Your task to perform on an android device: Open settings on Google Maps Image 0: 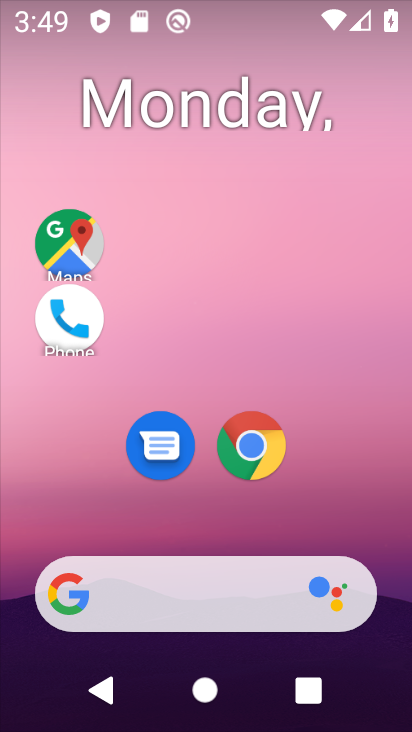
Step 0: click (75, 228)
Your task to perform on an android device: Open settings on Google Maps Image 1: 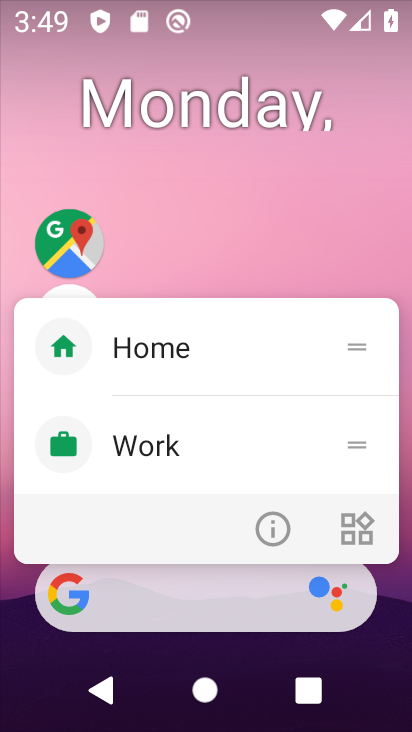
Step 1: click (72, 255)
Your task to perform on an android device: Open settings on Google Maps Image 2: 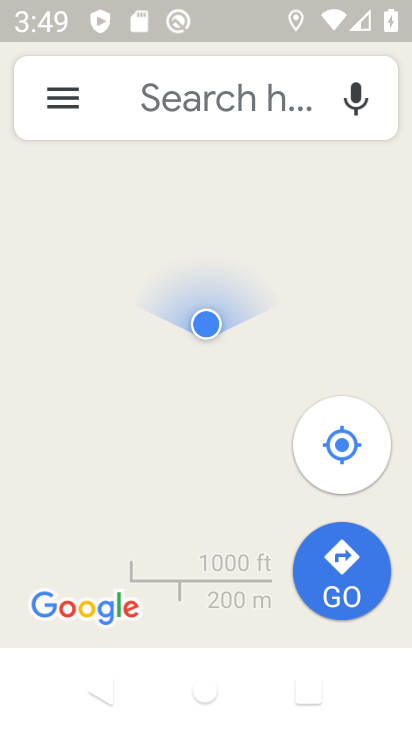
Step 2: click (64, 96)
Your task to perform on an android device: Open settings on Google Maps Image 3: 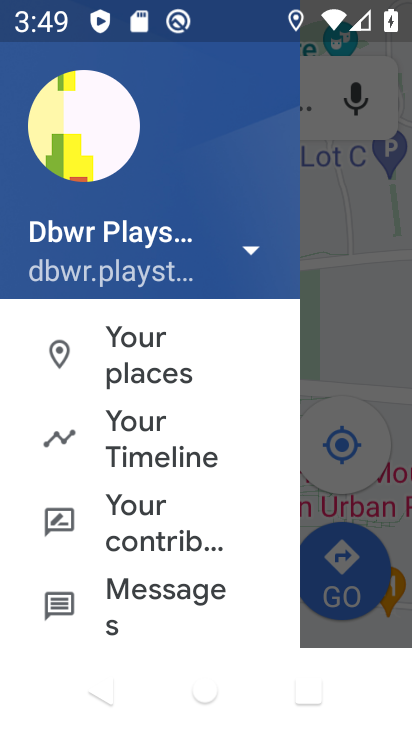
Step 3: drag from (176, 577) to (164, 90)
Your task to perform on an android device: Open settings on Google Maps Image 4: 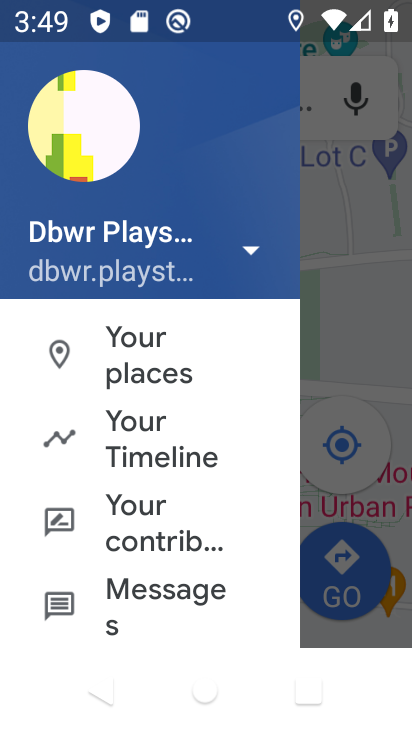
Step 4: drag from (140, 620) to (174, 207)
Your task to perform on an android device: Open settings on Google Maps Image 5: 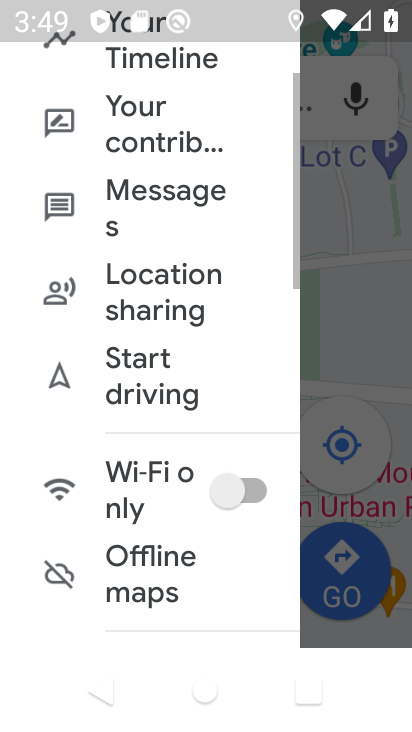
Step 5: drag from (156, 550) to (136, 109)
Your task to perform on an android device: Open settings on Google Maps Image 6: 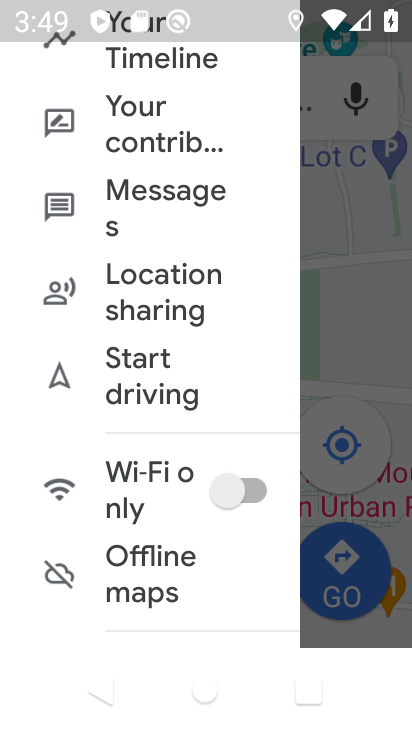
Step 6: drag from (131, 566) to (148, 89)
Your task to perform on an android device: Open settings on Google Maps Image 7: 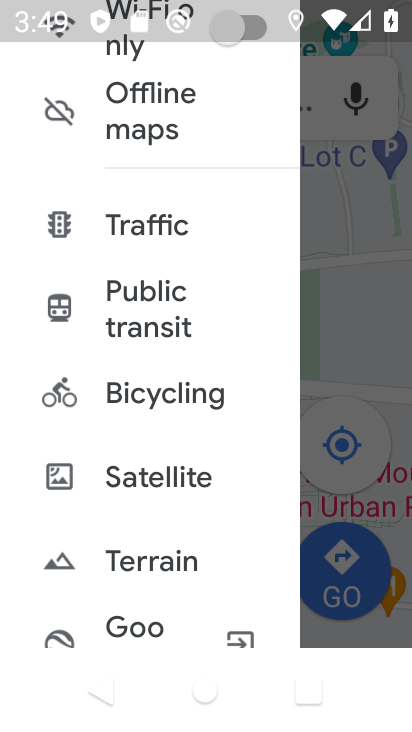
Step 7: drag from (148, 587) to (190, 65)
Your task to perform on an android device: Open settings on Google Maps Image 8: 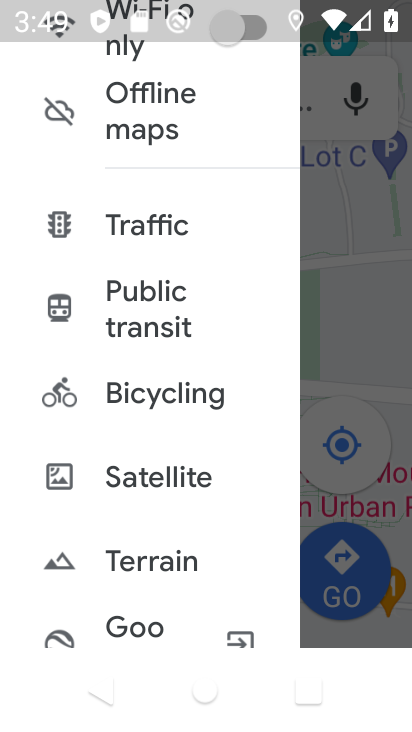
Step 8: drag from (182, 609) to (153, 192)
Your task to perform on an android device: Open settings on Google Maps Image 9: 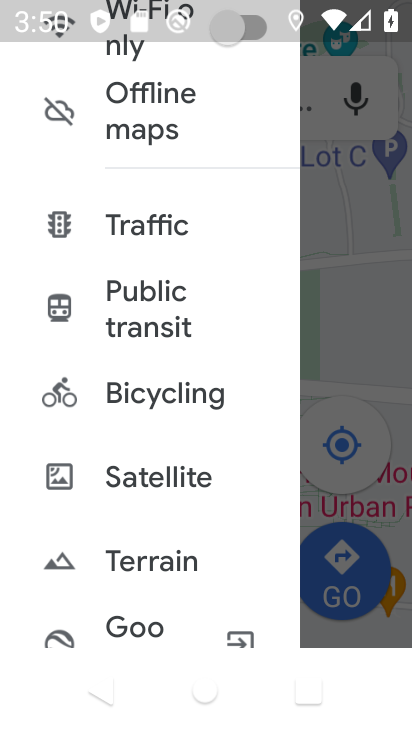
Step 9: drag from (165, 599) to (142, 152)
Your task to perform on an android device: Open settings on Google Maps Image 10: 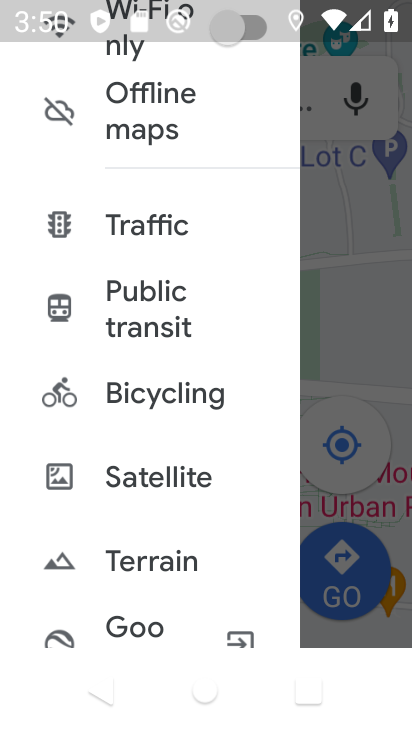
Step 10: drag from (146, 589) to (203, 137)
Your task to perform on an android device: Open settings on Google Maps Image 11: 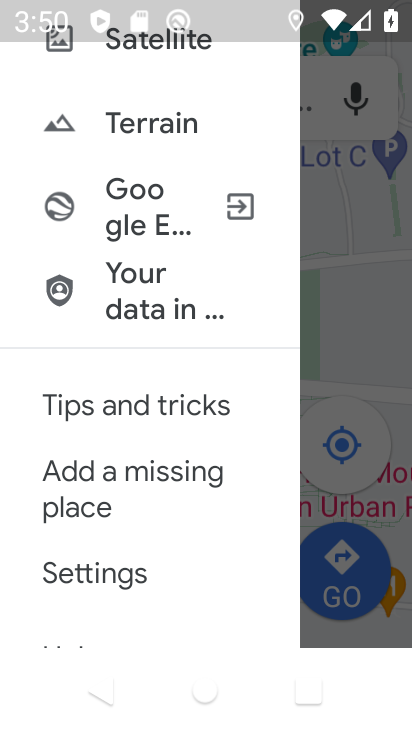
Step 11: drag from (162, 518) to (153, 194)
Your task to perform on an android device: Open settings on Google Maps Image 12: 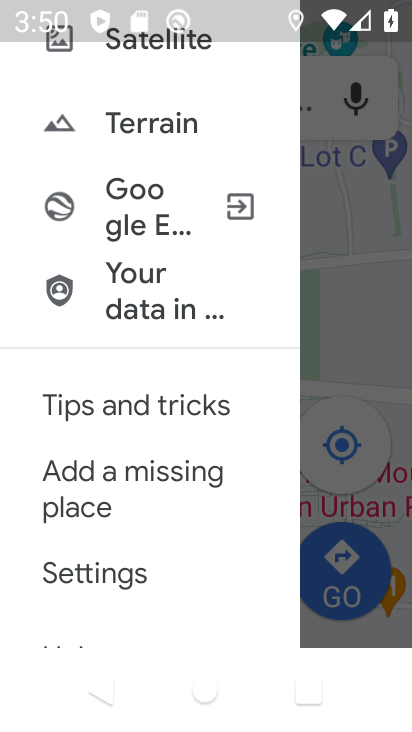
Step 12: click (116, 574)
Your task to perform on an android device: Open settings on Google Maps Image 13: 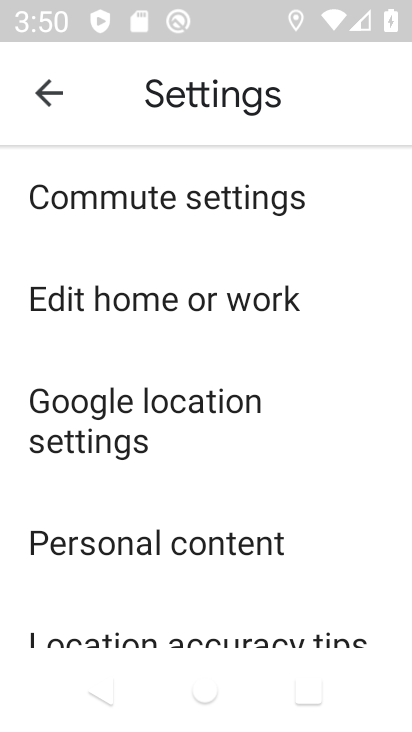
Step 13: task complete